Your task to perform on an android device: turn on the 24-hour format for clock Image 0: 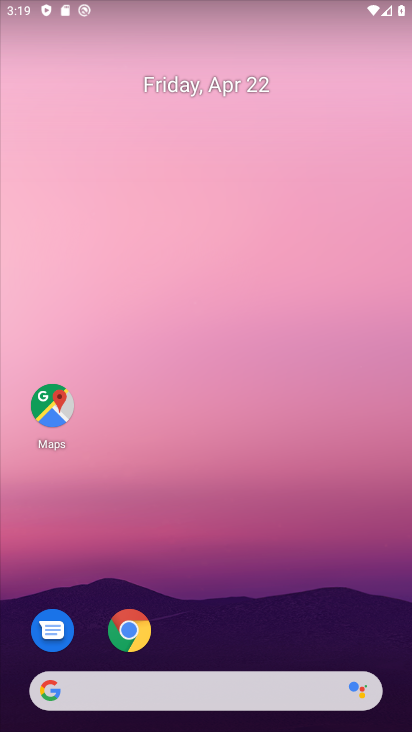
Step 0: drag from (234, 632) to (202, 0)
Your task to perform on an android device: turn on the 24-hour format for clock Image 1: 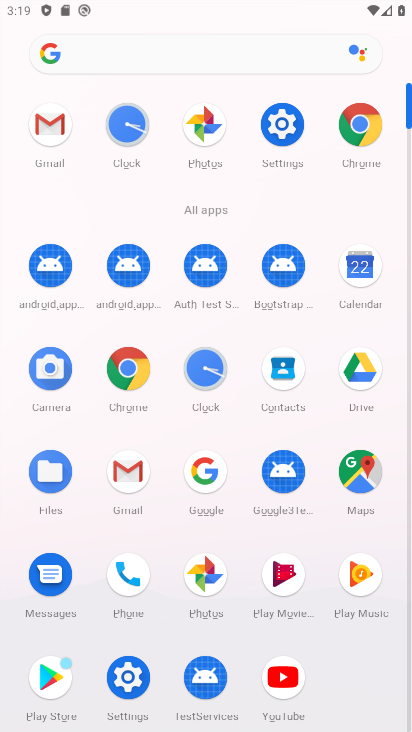
Step 1: click (118, 681)
Your task to perform on an android device: turn on the 24-hour format for clock Image 2: 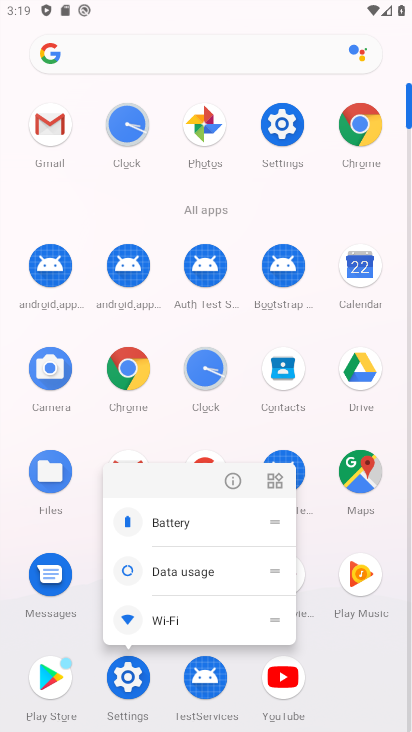
Step 2: click (125, 681)
Your task to perform on an android device: turn on the 24-hour format for clock Image 3: 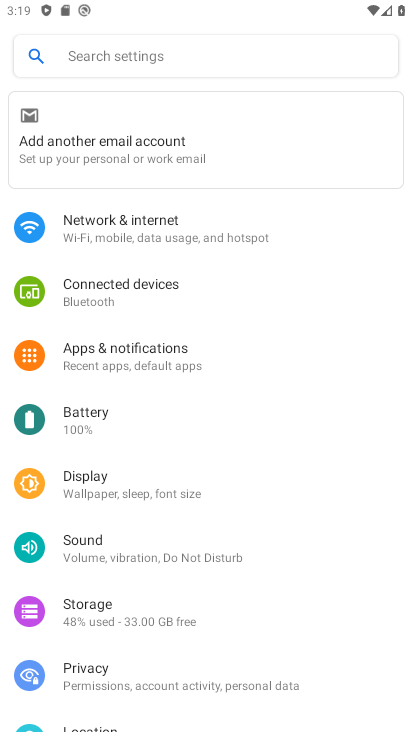
Step 3: drag from (130, 636) to (216, 152)
Your task to perform on an android device: turn on the 24-hour format for clock Image 4: 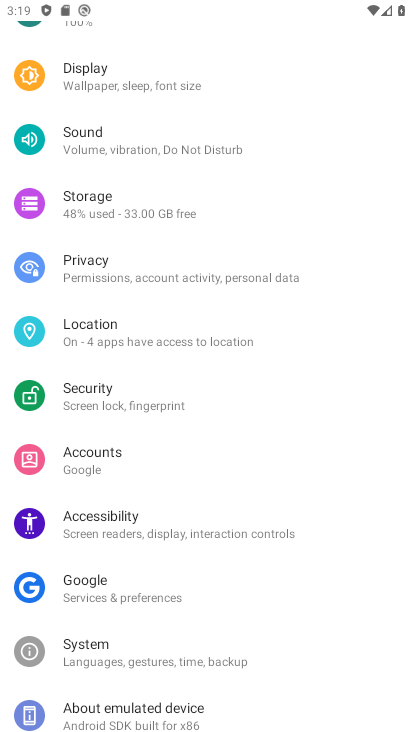
Step 4: drag from (96, 654) to (122, 464)
Your task to perform on an android device: turn on the 24-hour format for clock Image 5: 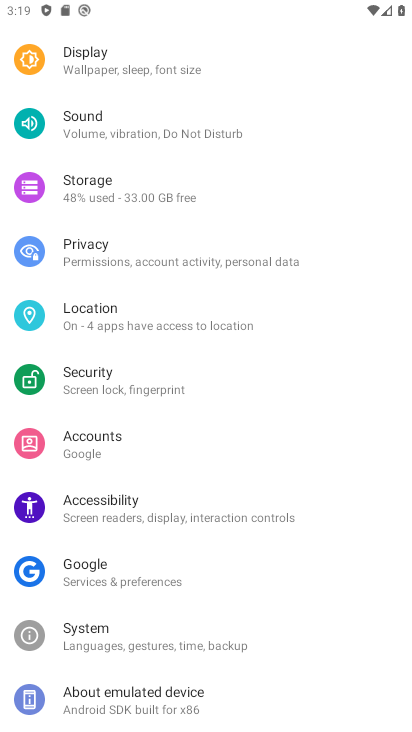
Step 5: click (148, 648)
Your task to perform on an android device: turn on the 24-hour format for clock Image 6: 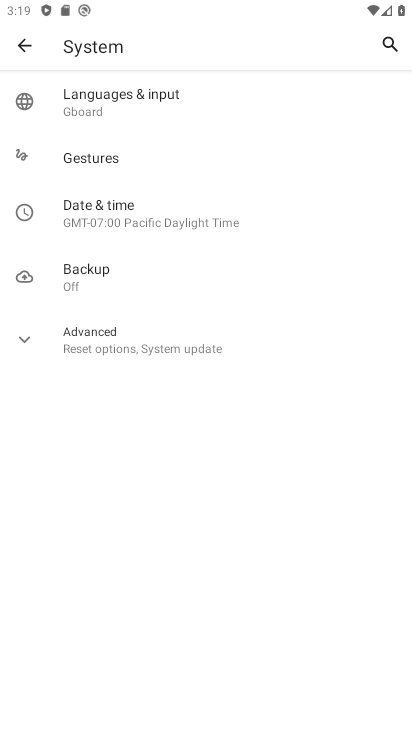
Step 6: click (135, 217)
Your task to perform on an android device: turn on the 24-hour format for clock Image 7: 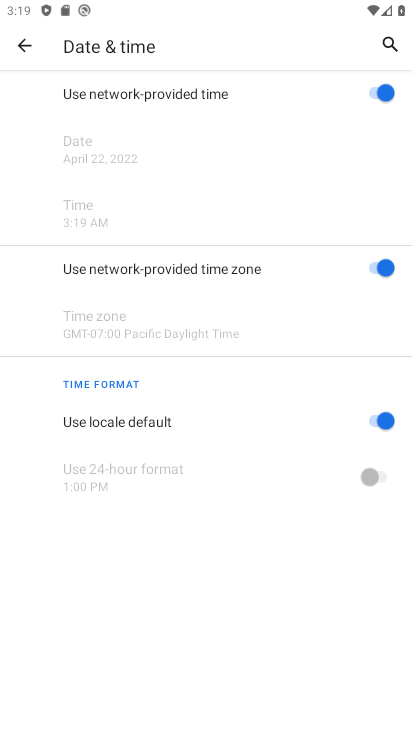
Step 7: click (369, 430)
Your task to perform on an android device: turn on the 24-hour format for clock Image 8: 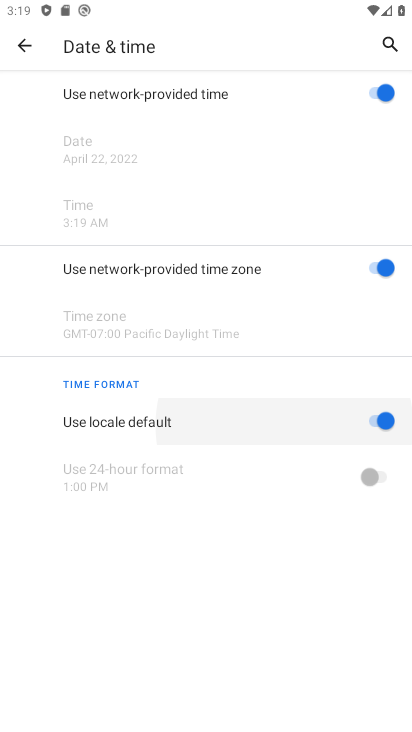
Step 8: click (384, 478)
Your task to perform on an android device: turn on the 24-hour format for clock Image 9: 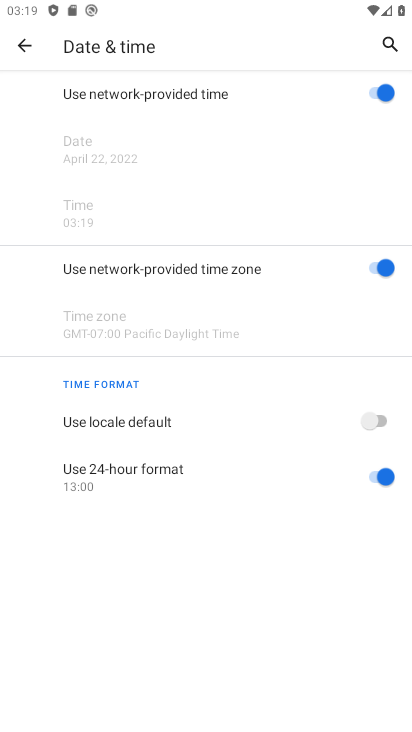
Step 9: task complete